Your task to perform on an android device: set the stopwatch Image 0: 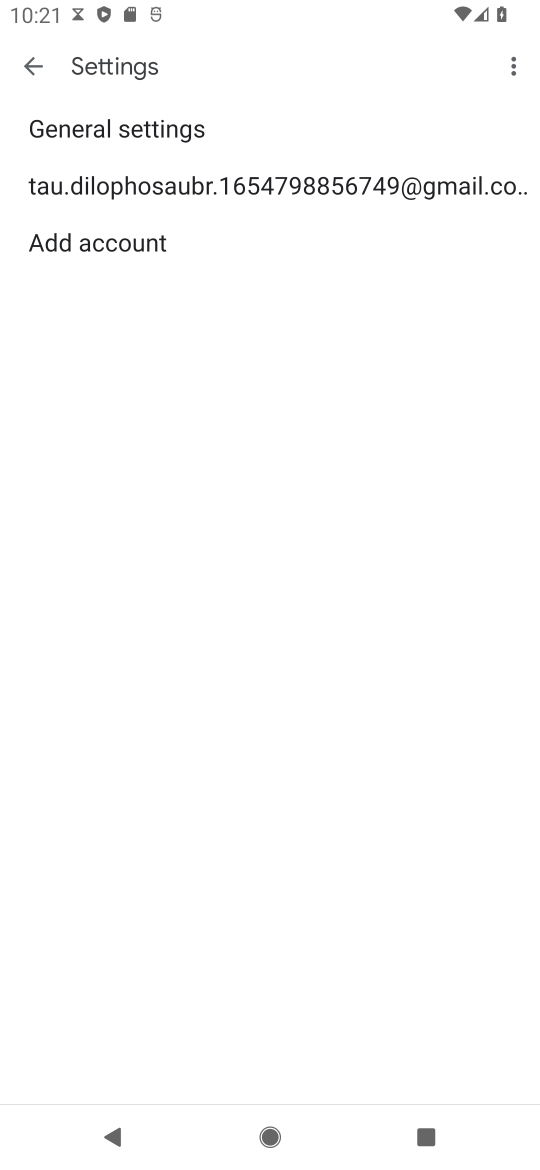
Step 0: press home button
Your task to perform on an android device: set the stopwatch Image 1: 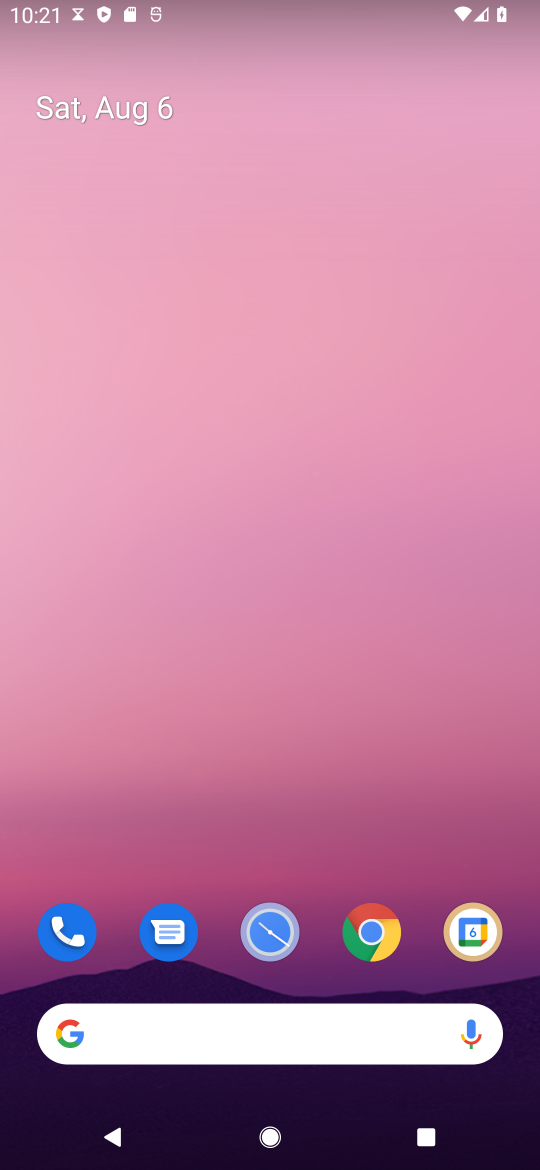
Step 1: drag from (208, 1040) to (349, 253)
Your task to perform on an android device: set the stopwatch Image 2: 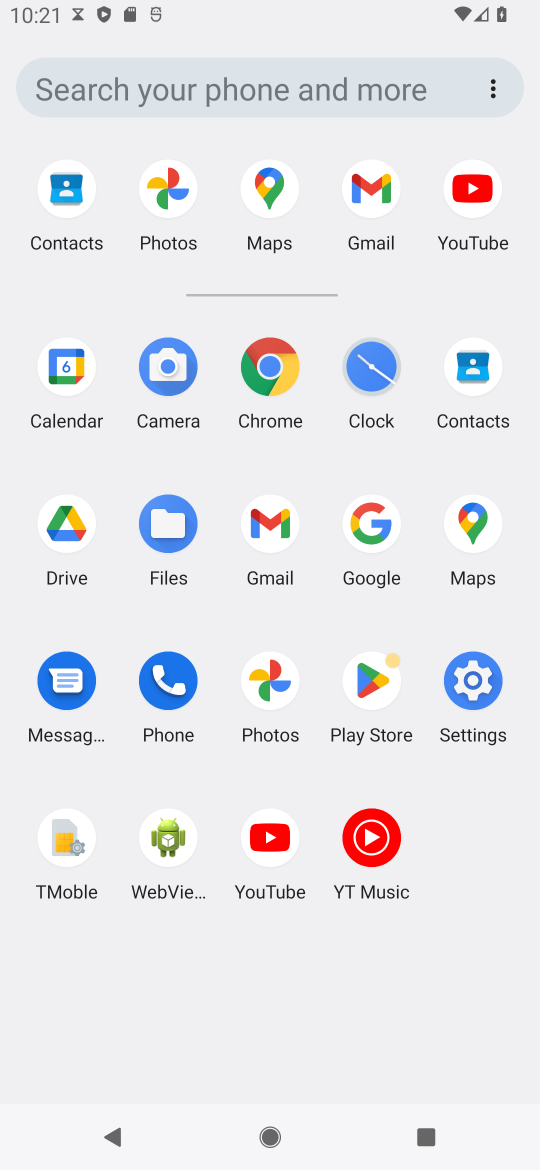
Step 2: click (371, 364)
Your task to perform on an android device: set the stopwatch Image 3: 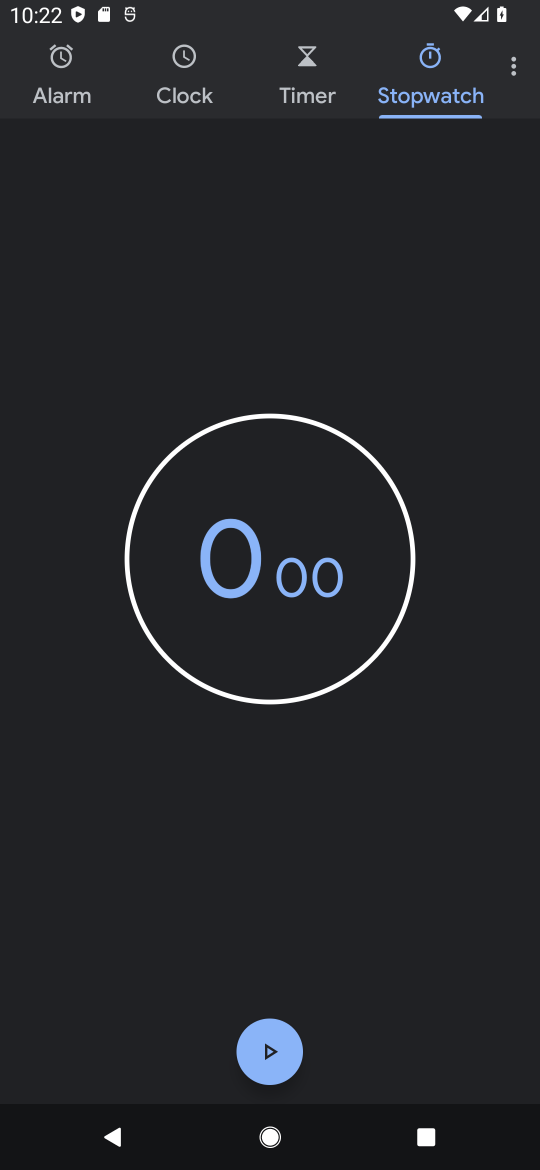
Step 3: click (279, 1050)
Your task to perform on an android device: set the stopwatch Image 4: 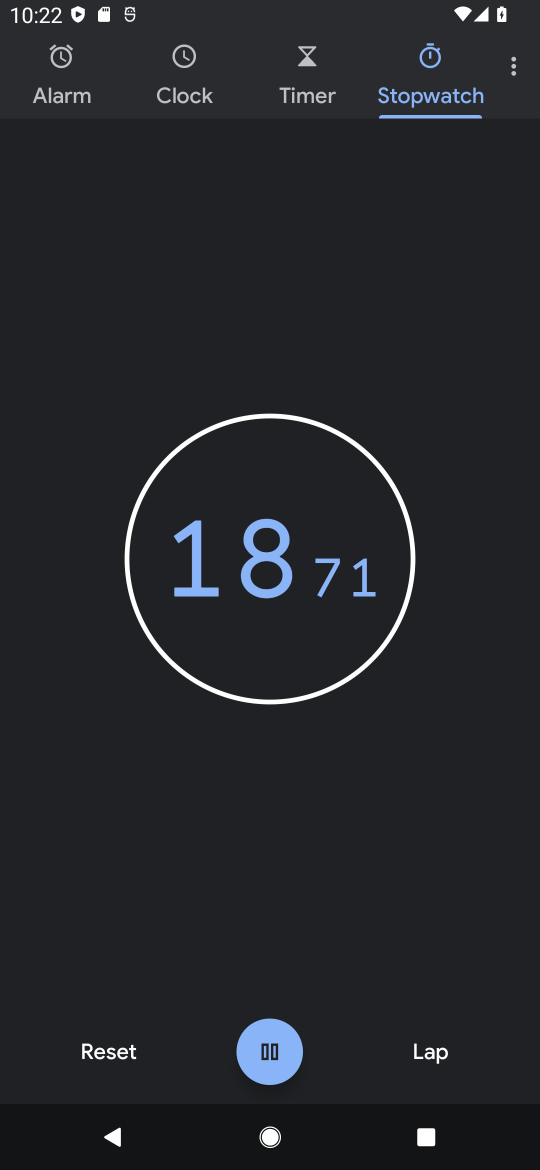
Step 4: click (279, 1050)
Your task to perform on an android device: set the stopwatch Image 5: 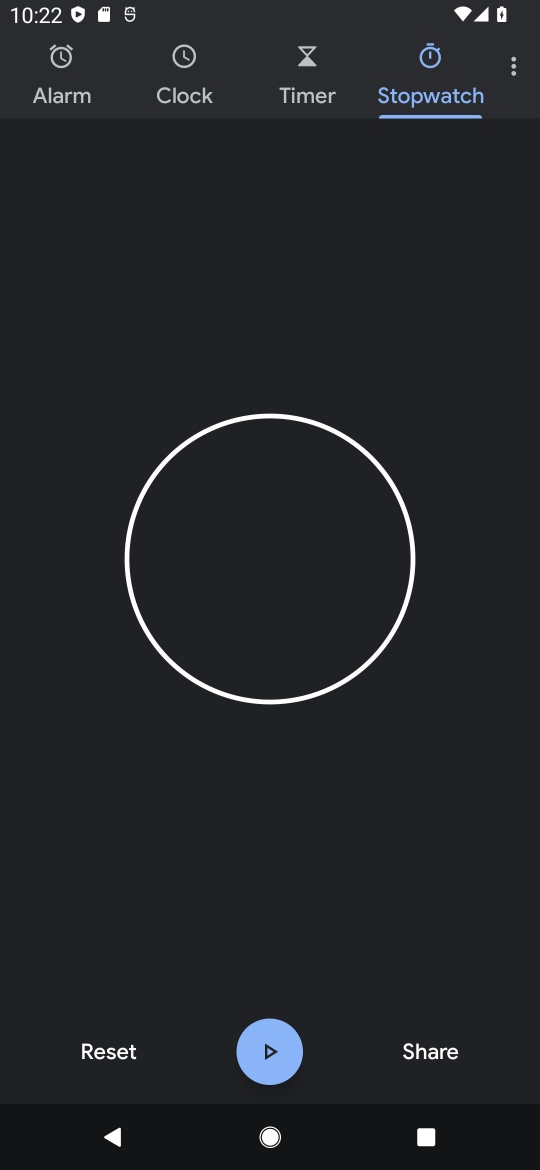
Step 5: task complete